Your task to perform on an android device: Open Android settings Image 0: 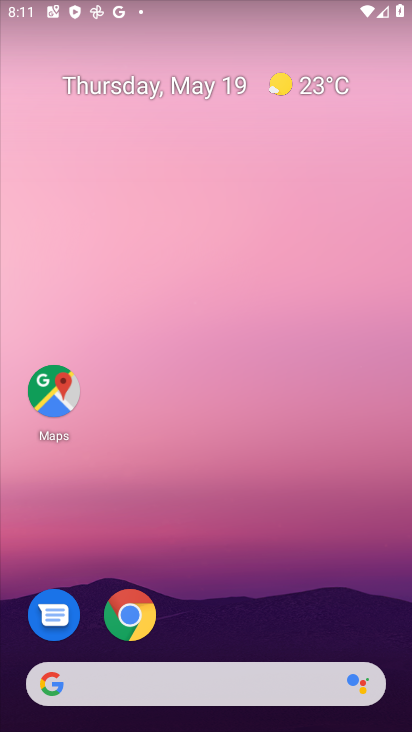
Step 0: drag from (346, 599) to (264, 62)
Your task to perform on an android device: Open Android settings Image 1: 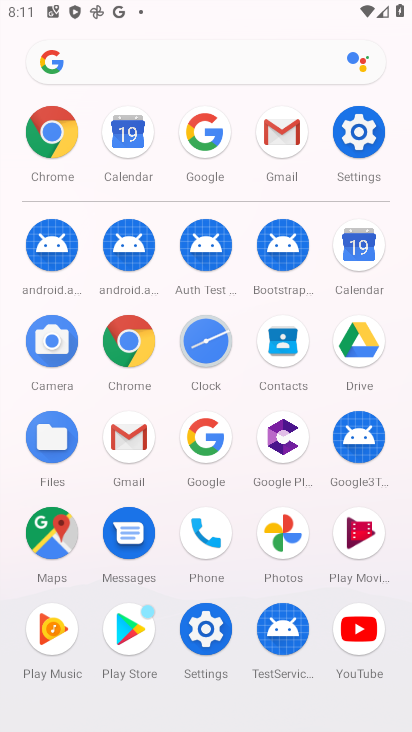
Step 1: click (202, 629)
Your task to perform on an android device: Open Android settings Image 2: 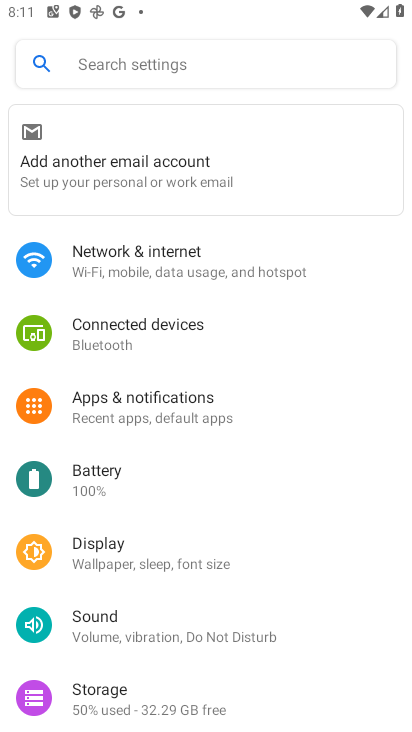
Step 2: drag from (202, 625) to (220, 76)
Your task to perform on an android device: Open Android settings Image 3: 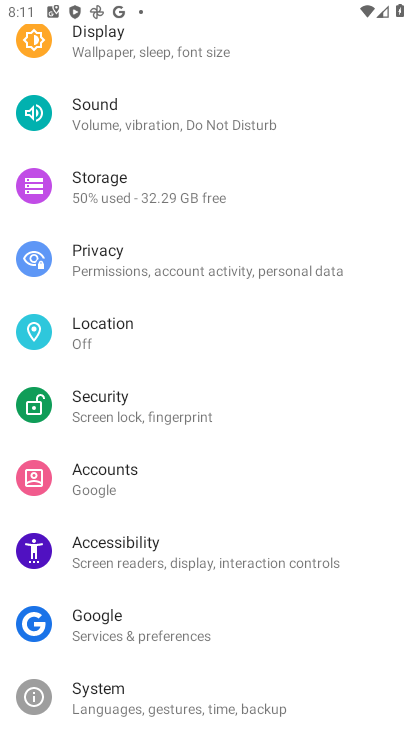
Step 3: drag from (136, 683) to (175, 130)
Your task to perform on an android device: Open Android settings Image 4: 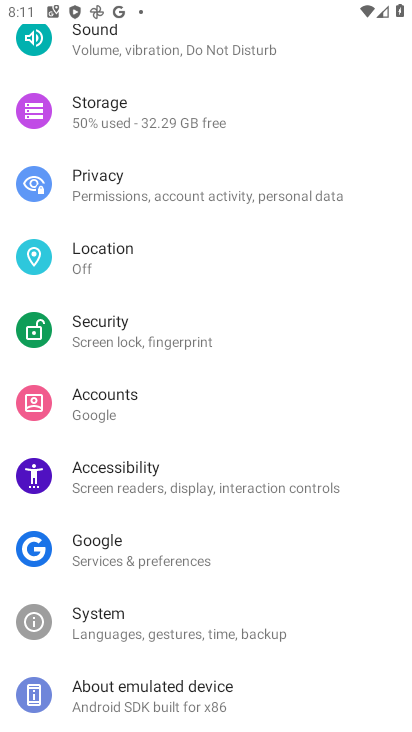
Step 4: click (162, 702)
Your task to perform on an android device: Open Android settings Image 5: 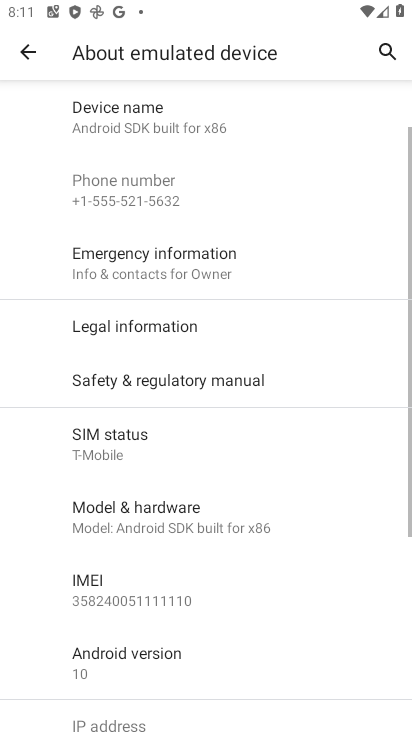
Step 5: click (151, 678)
Your task to perform on an android device: Open Android settings Image 6: 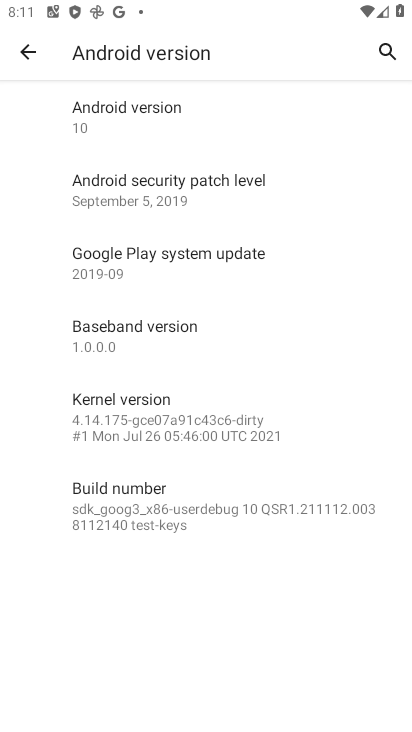
Step 6: task complete